Your task to perform on an android device: toggle javascript in the chrome app Image 0: 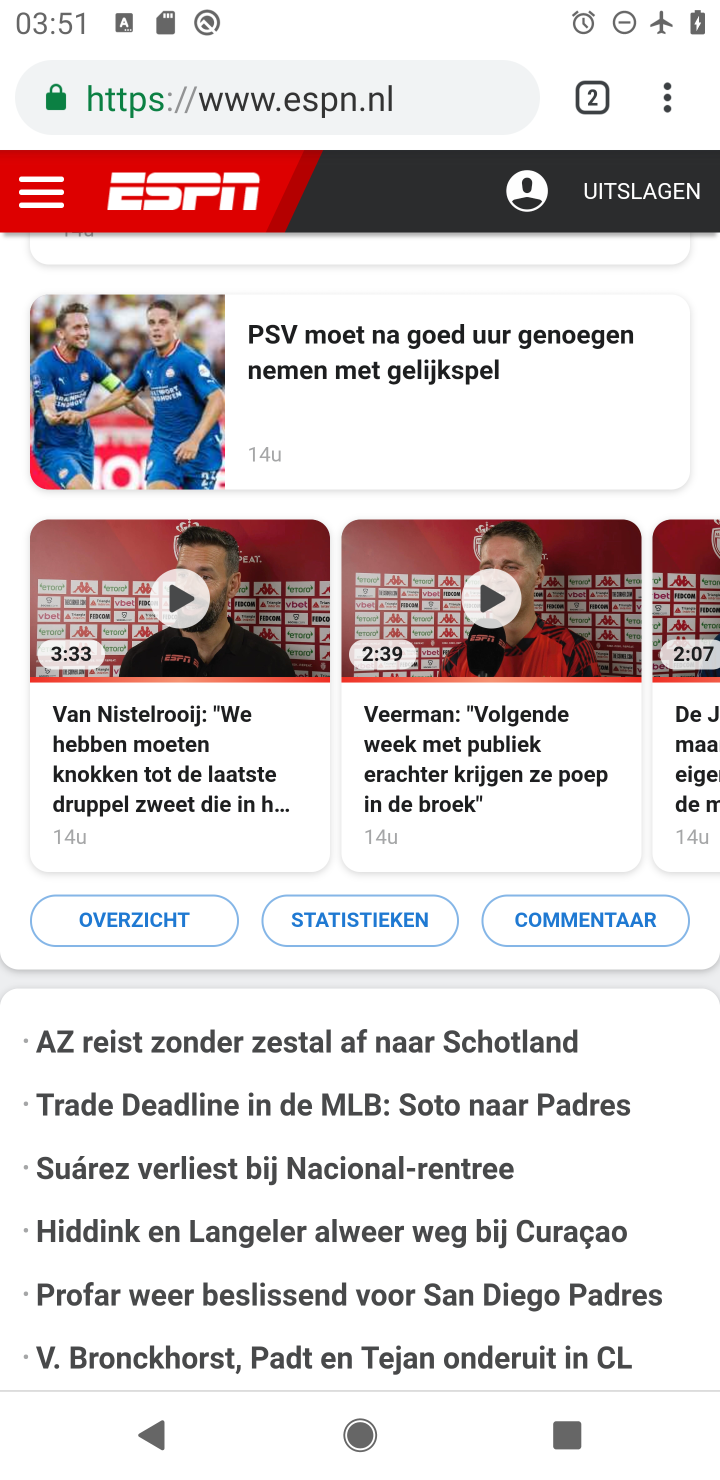
Step 0: click (660, 113)
Your task to perform on an android device: toggle javascript in the chrome app Image 1: 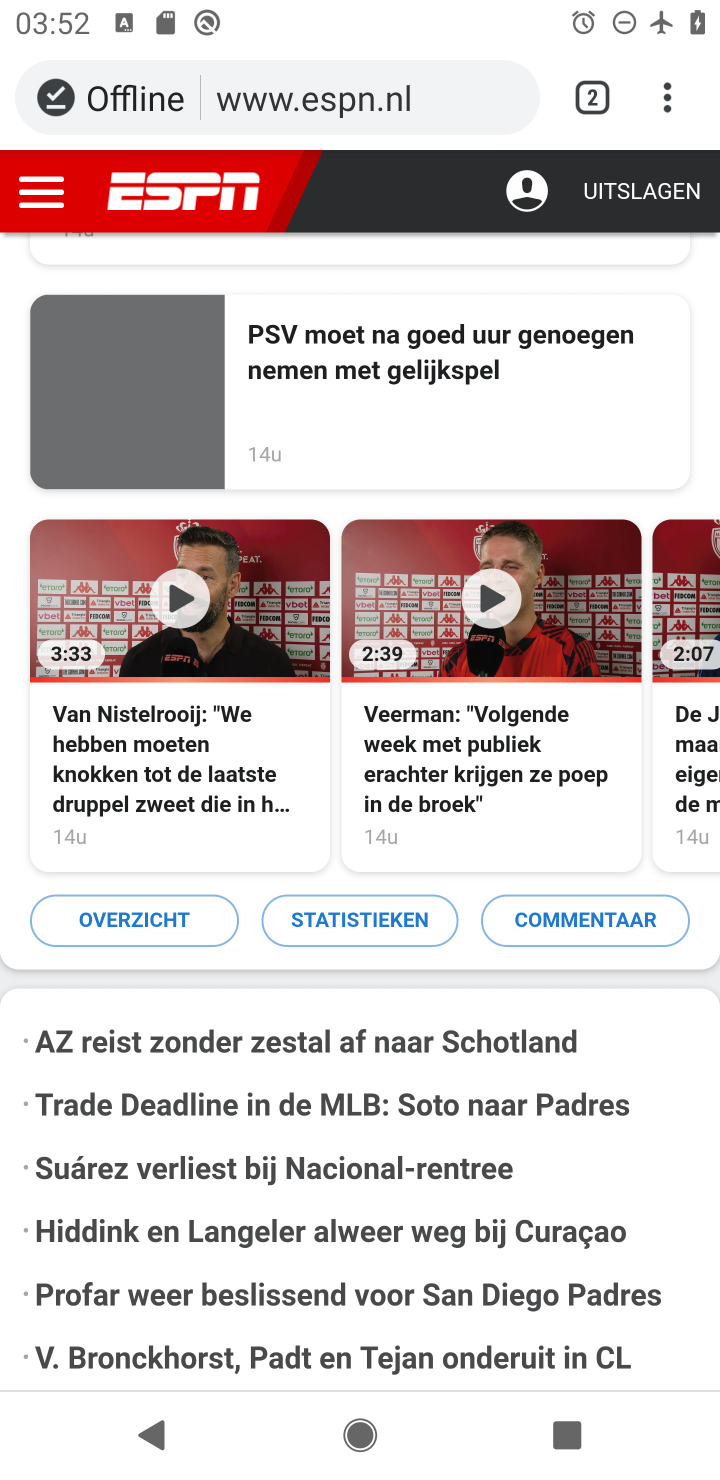
Step 1: click (655, 110)
Your task to perform on an android device: toggle javascript in the chrome app Image 2: 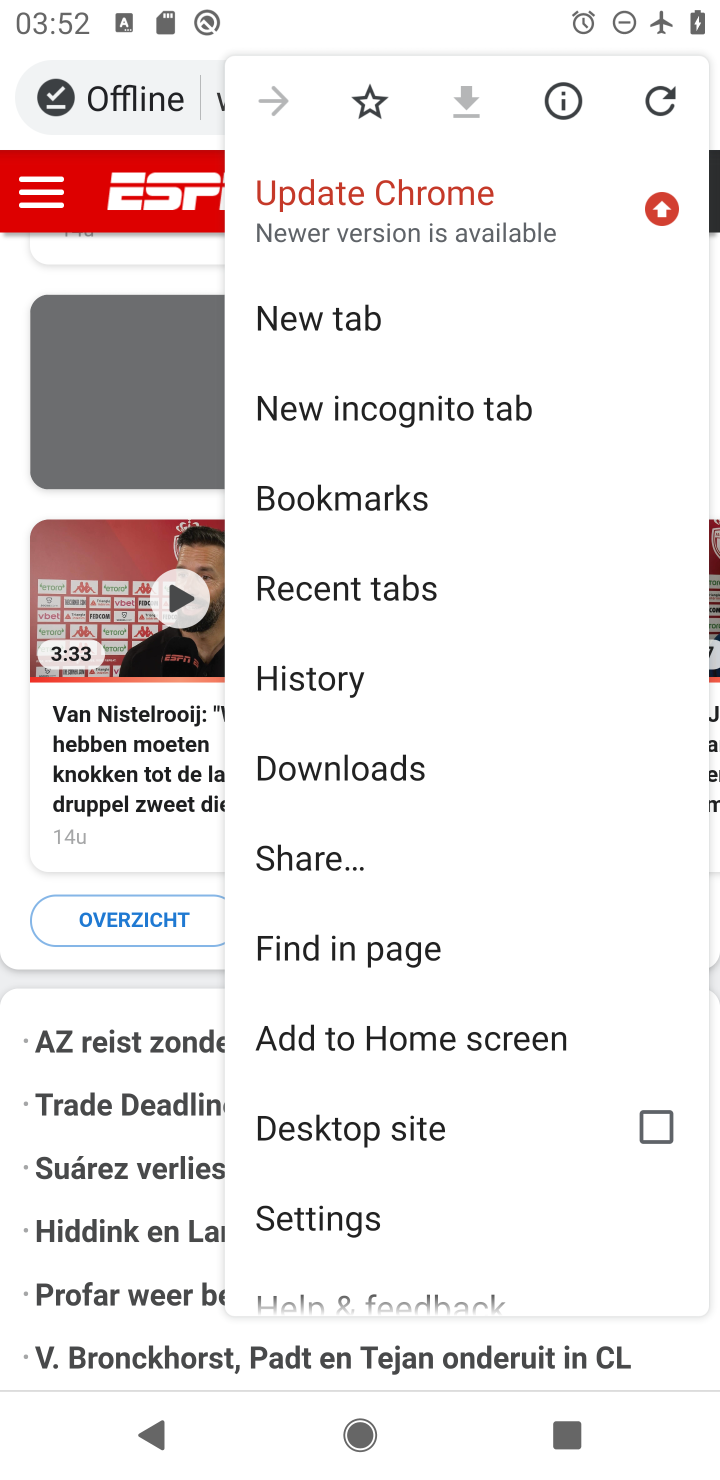
Step 2: click (337, 1203)
Your task to perform on an android device: toggle javascript in the chrome app Image 3: 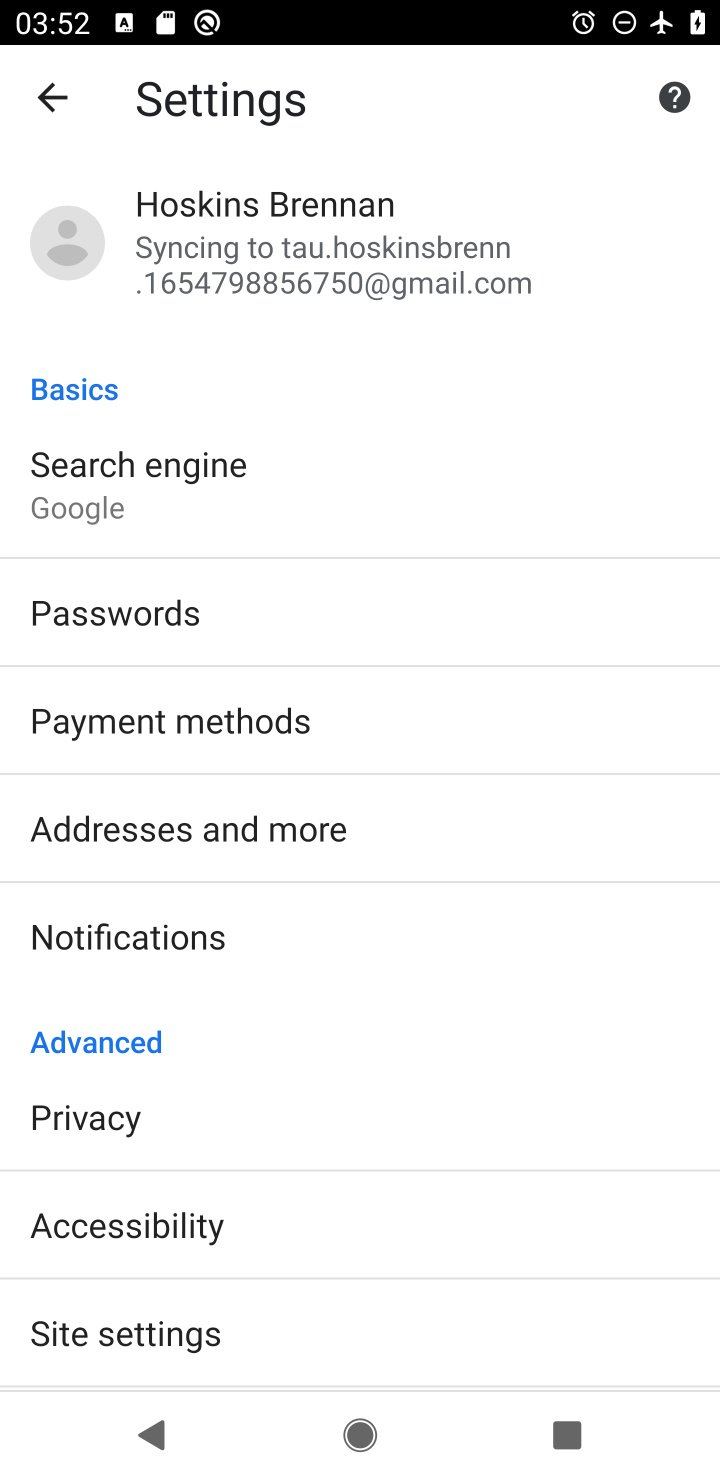
Step 3: drag from (363, 1291) to (396, 510)
Your task to perform on an android device: toggle javascript in the chrome app Image 4: 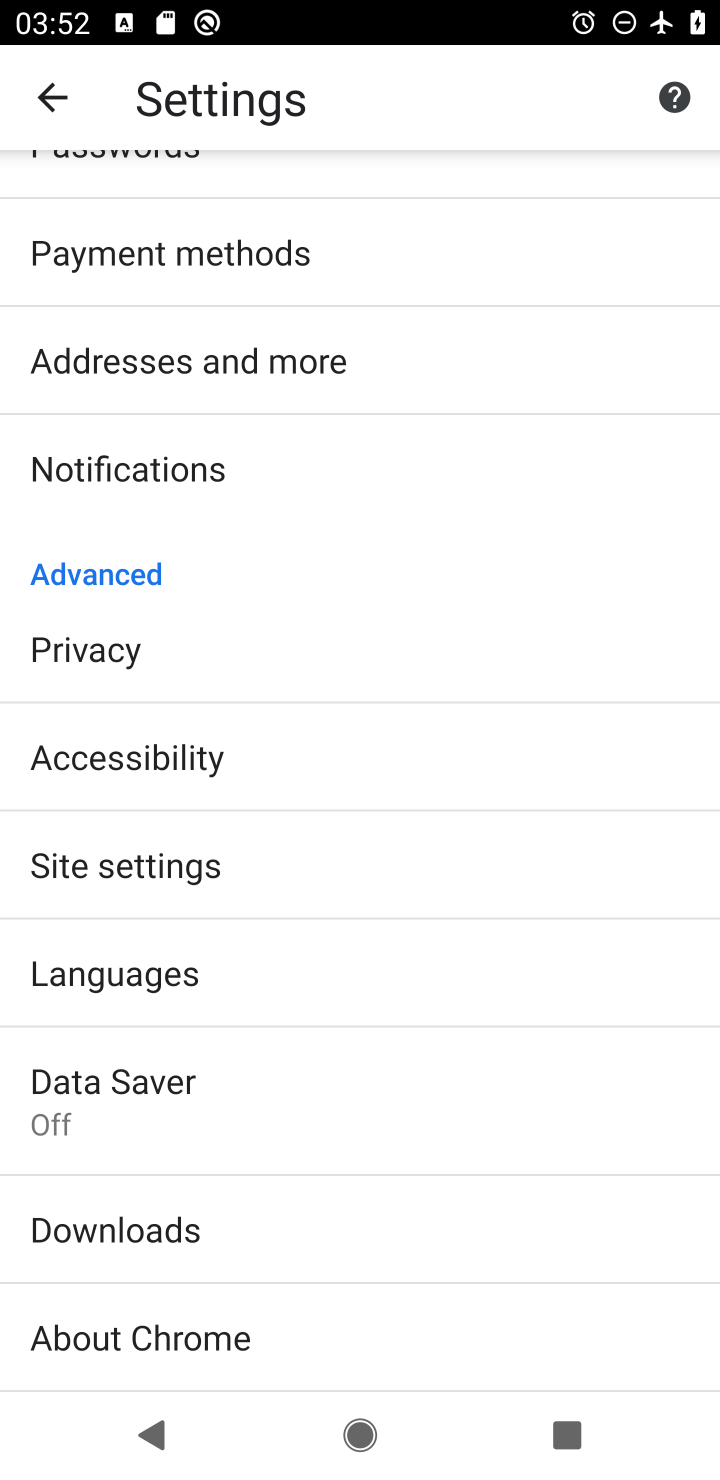
Step 4: click (94, 857)
Your task to perform on an android device: toggle javascript in the chrome app Image 5: 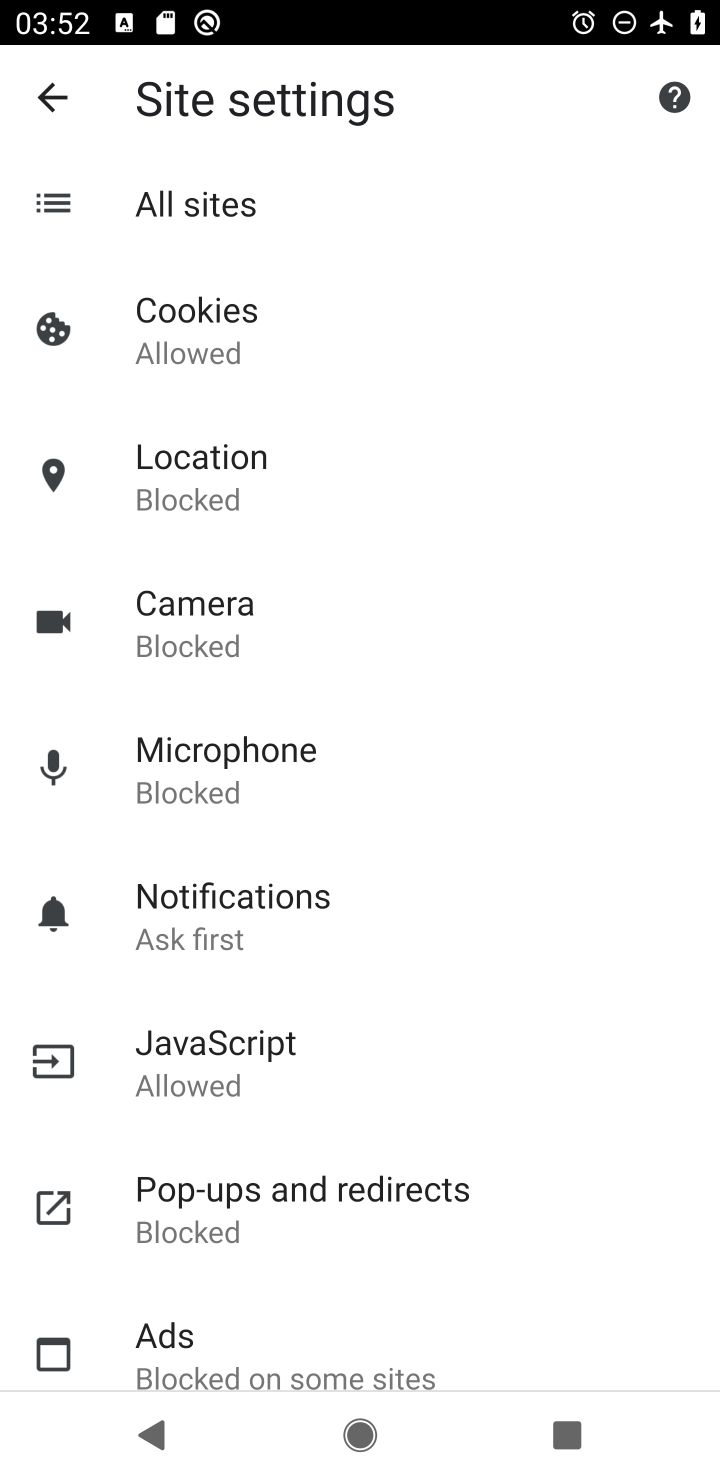
Step 5: click (197, 1081)
Your task to perform on an android device: toggle javascript in the chrome app Image 6: 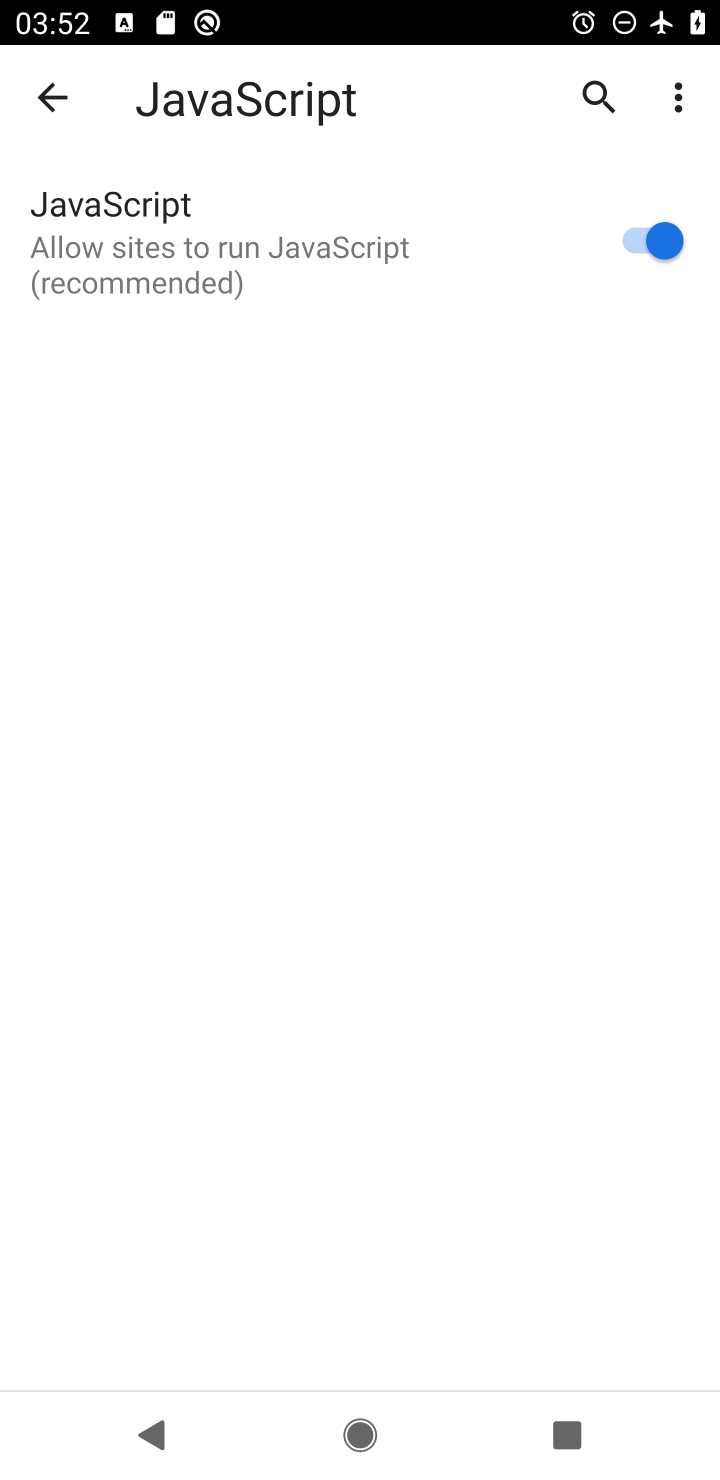
Step 6: click (627, 240)
Your task to perform on an android device: toggle javascript in the chrome app Image 7: 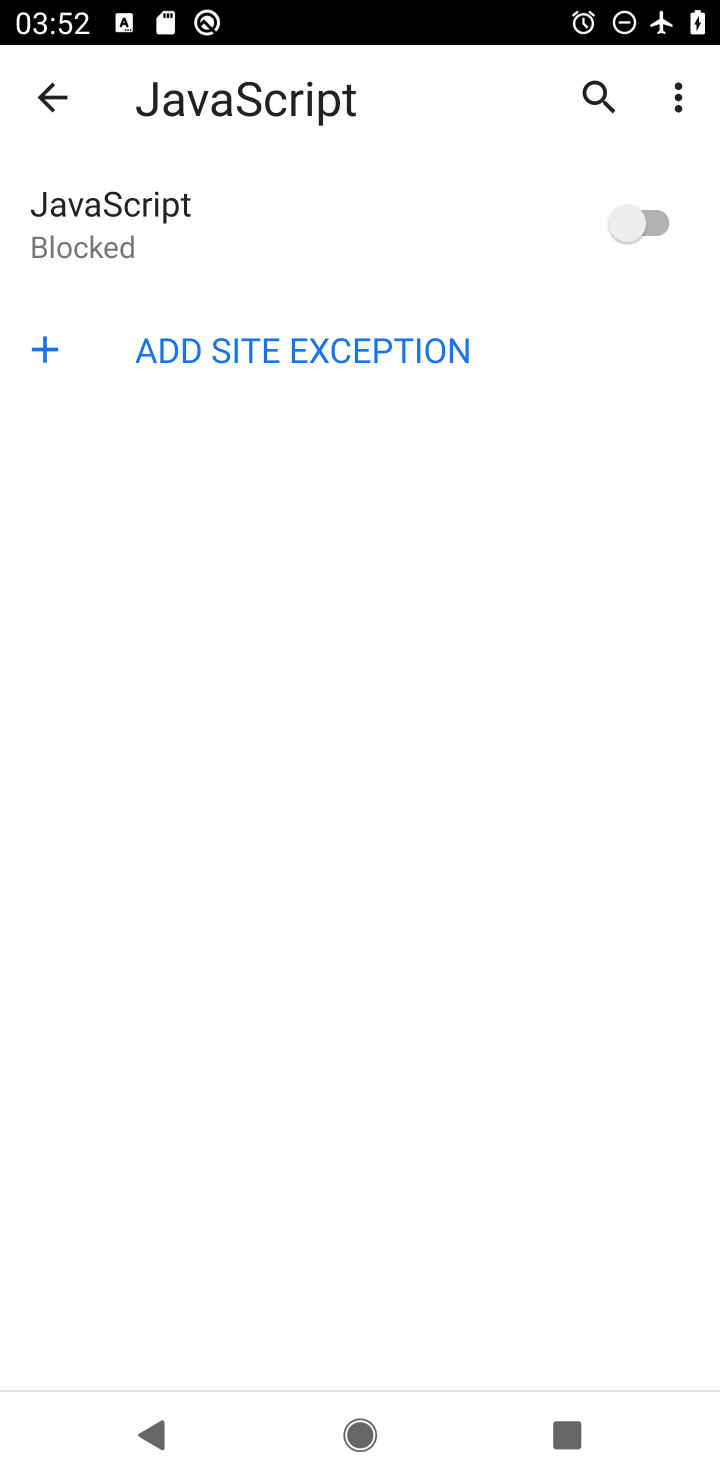
Step 7: task complete